Your task to perform on an android device: Open Google Chrome and click the shortcut for Amazon.com Image 0: 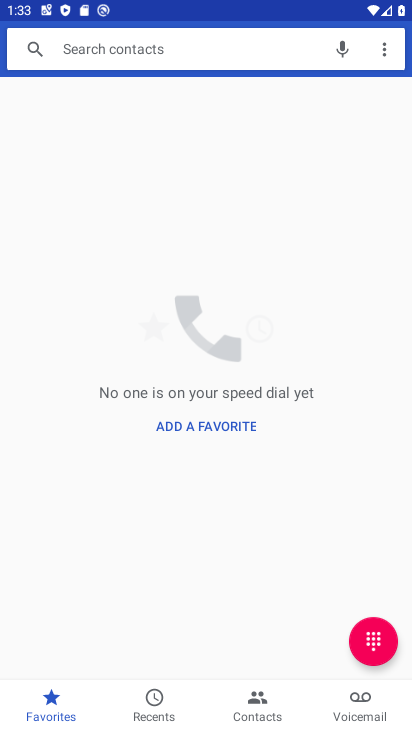
Step 0: press home button
Your task to perform on an android device: Open Google Chrome and click the shortcut for Amazon.com Image 1: 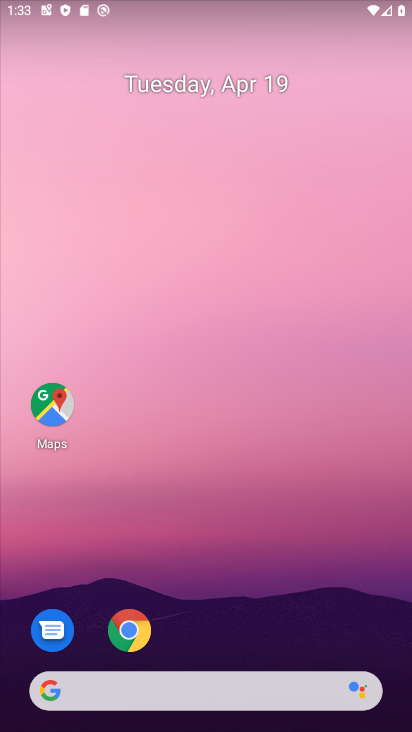
Step 1: click (121, 630)
Your task to perform on an android device: Open Google Chrome and click the shortcut for Amazon.com Image 2: 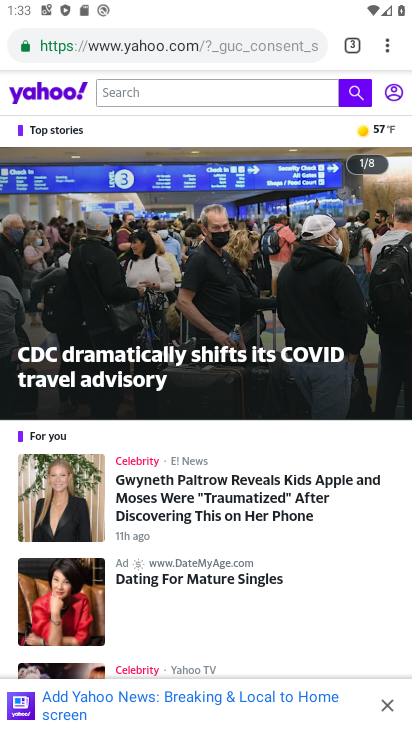
Step 2: click (386, 42)
Your task to perform on an android device: Open Google Chrome and click the shortcut for Amazon.com Image 3: 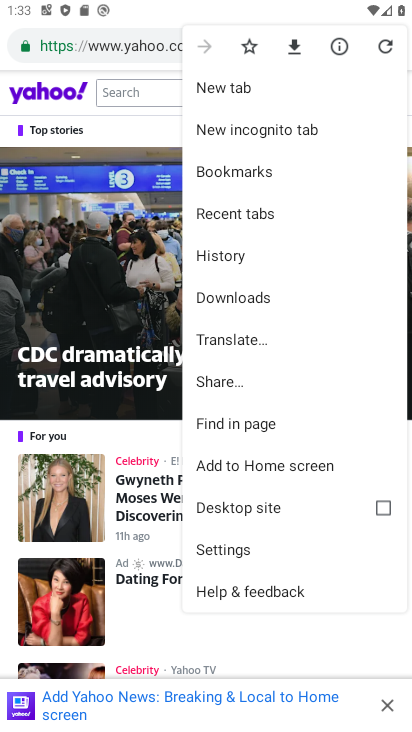
Step 3: click (262, 89)
Your task to perform on an android device: Open Google Chrome and click the shortcut for Amazon.com Image 4: 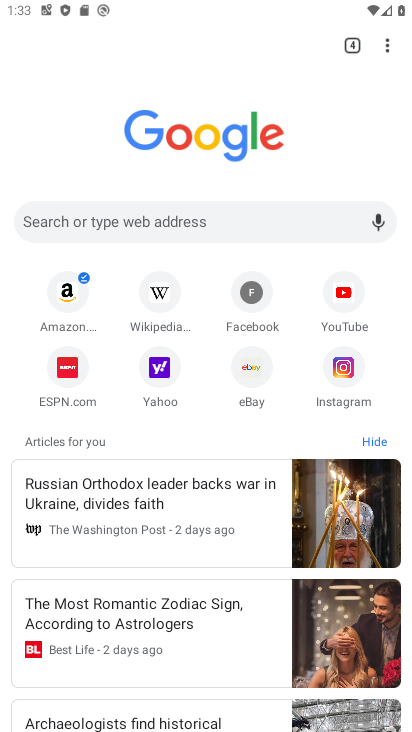
Step 4: click (73, 313)
Your task to perform on an android device: Open Google Chrome and click the shortcut for Amazon.com Image 5: 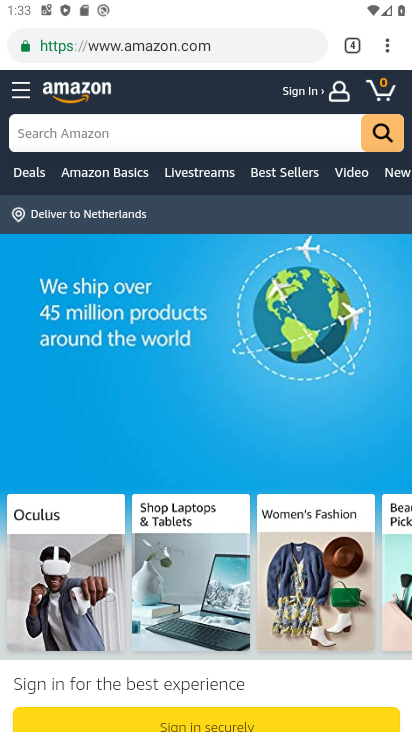
Step 5: task complete